Your task to perform on an android device: open app "Move to iOS" (install if not already installed) Image 0: 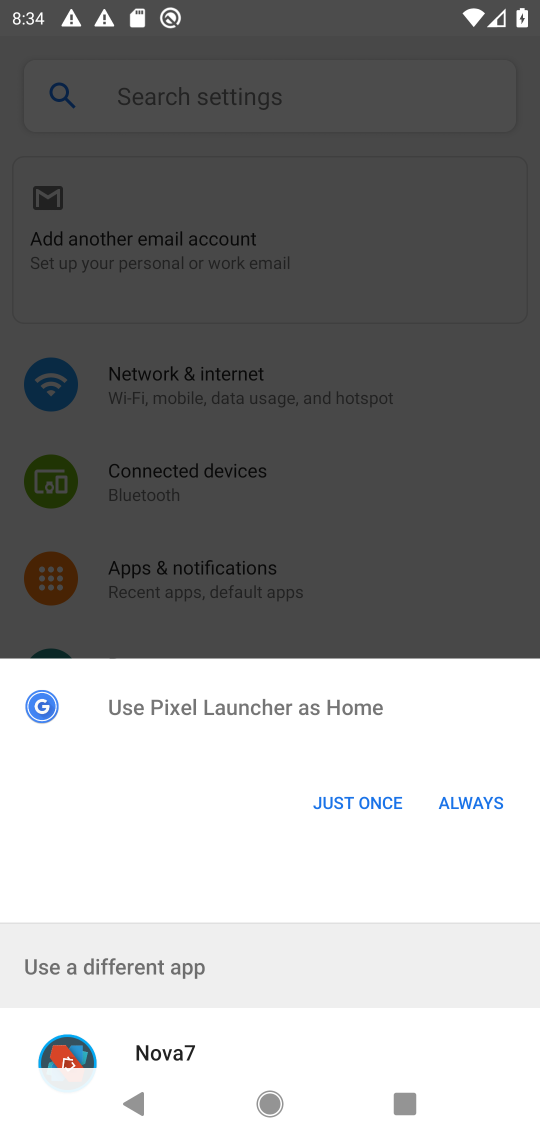
Step 0: click (320, 792)
Your task to perform on an android device: open app "Move to iOS" (install if not already installed) Image 1: 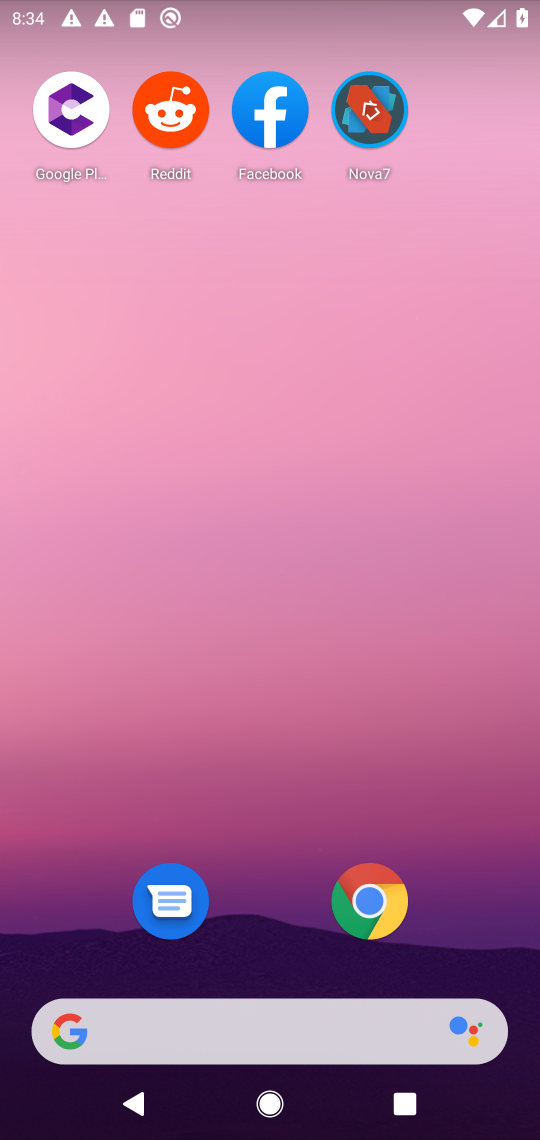
Step 1: drag from (100, 977) to (325, 1)
Your task to perform on an android device: open app "Move to iOS" (install if not already installed) Image 2: 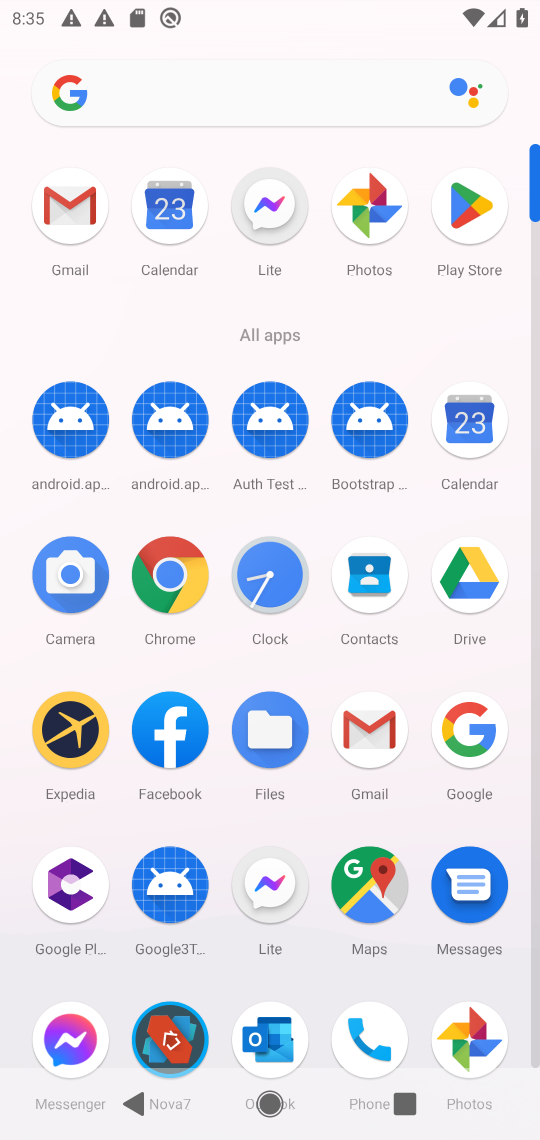
Step 2: click (434, 230)
Your task to perform on an android device: open app "Move to iOS" (install if not already installed) Image 3: 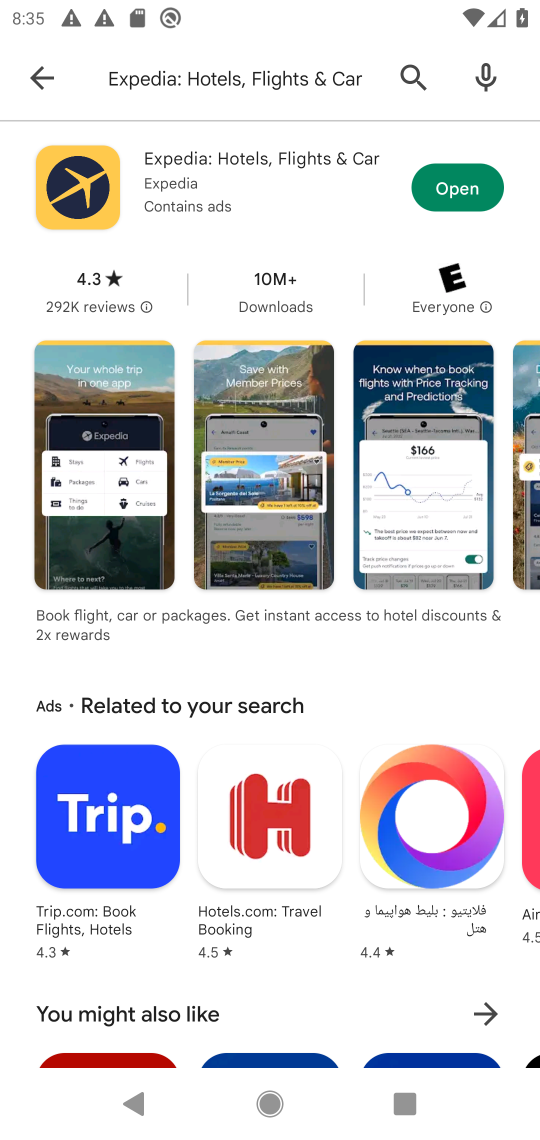
Step 3: press back button
Your task to perform on an android device: open app "Move to iOS" (install if not already installed) Image 4: 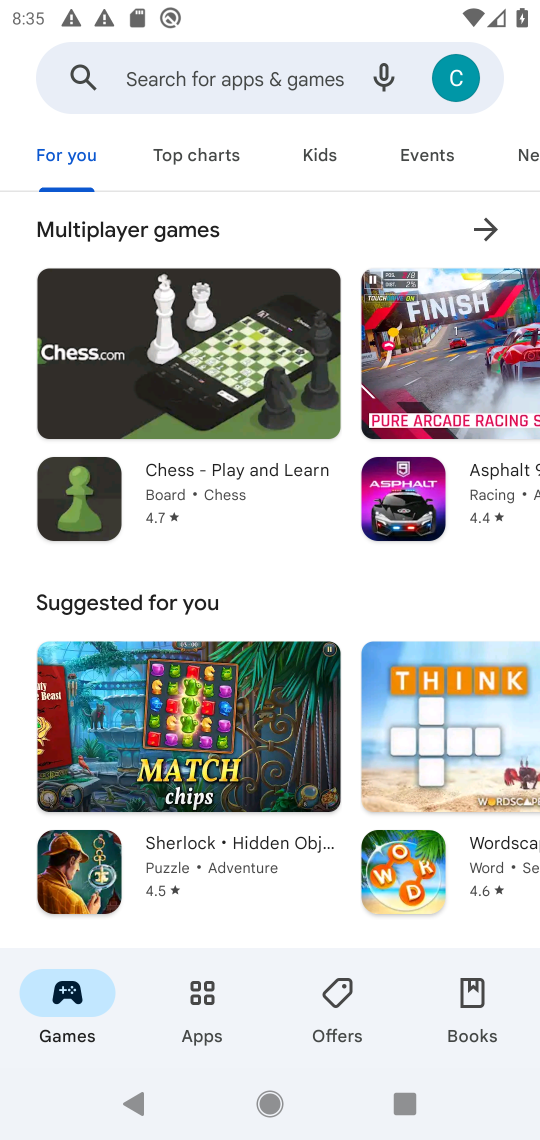
Step 4: click (182, 89)
Your task to perform on an android device: open app "Move to iOS" (install if not already installed) Image 5: 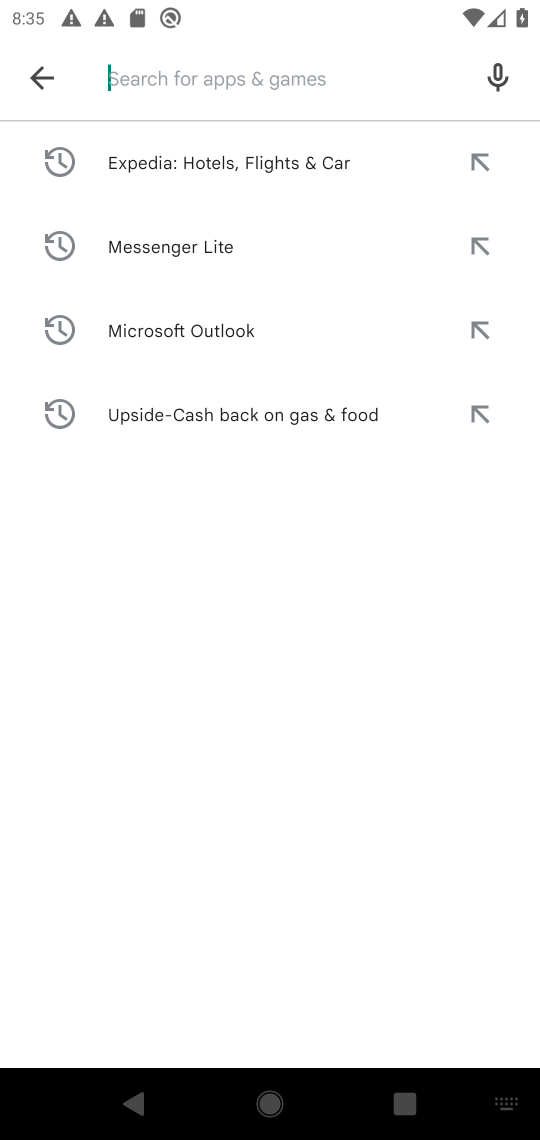
Step 5: type "Move to iOS"
Your task to perform on an android device: open app "Move to iOS" (install if not already installed) Image 6: 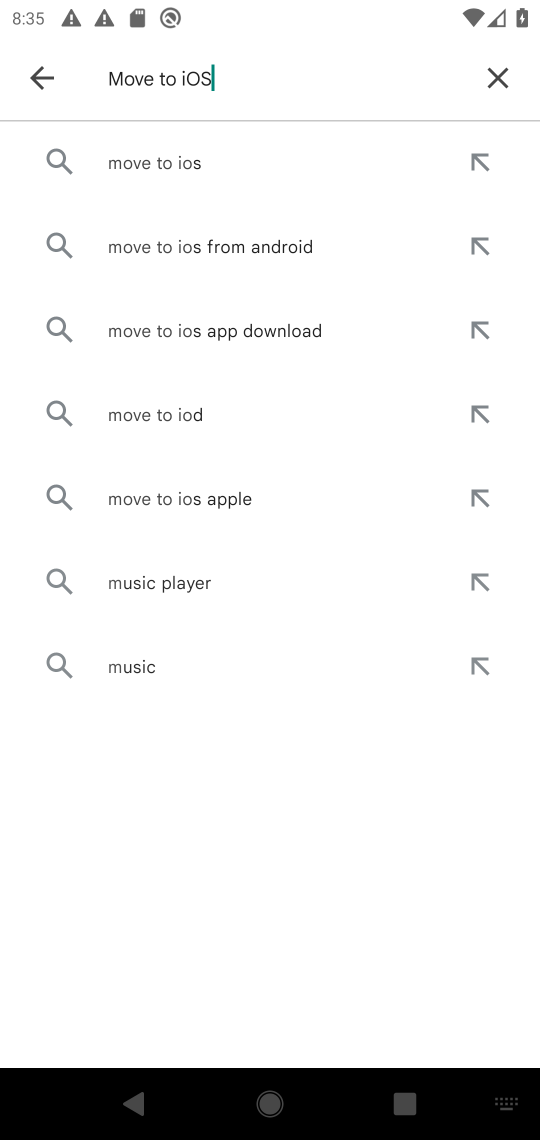
Step 6: press enter
Your task to perform on an android device: open app "Move to iOS" (install if not already installed) Image 7: 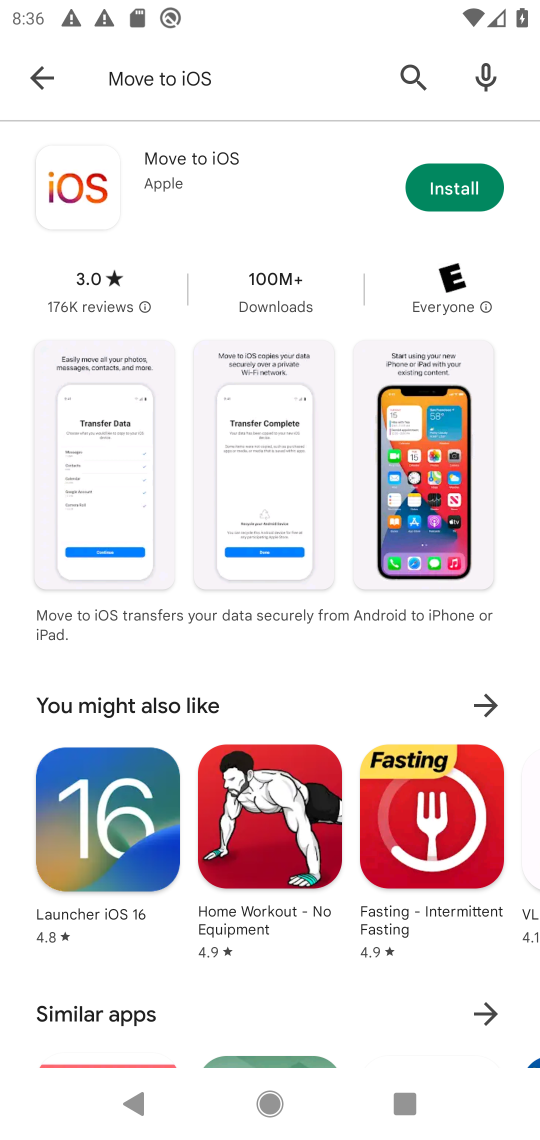
Step 7: click (445, 190)
Your task to perform on an android device: open app "Move to iOS" (install if not already installed) Image 8: 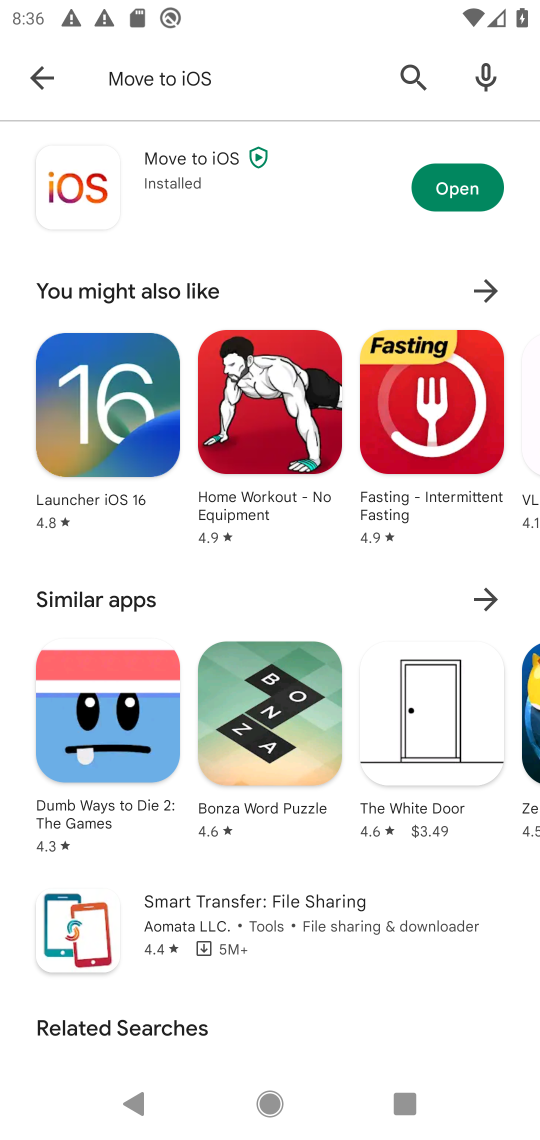
Step 8: click (458, 186)
Your task to perform on an android device: open app "Move to iOS" (install if not already installed) Image 9: 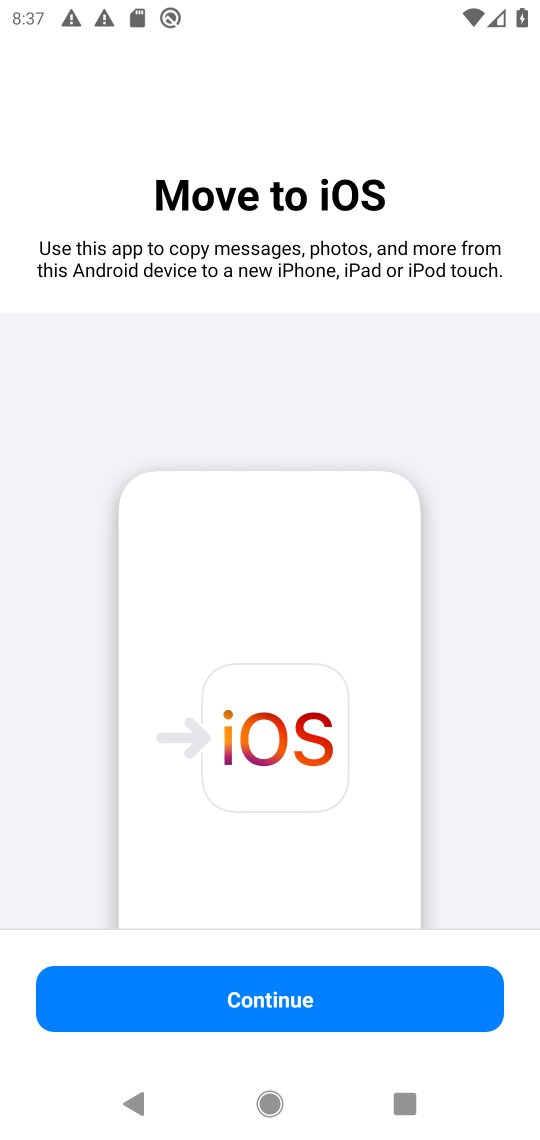
Step 9: task complete